Your task to perform on an android device: remove spam from my inbox in the gmail app Image 0: 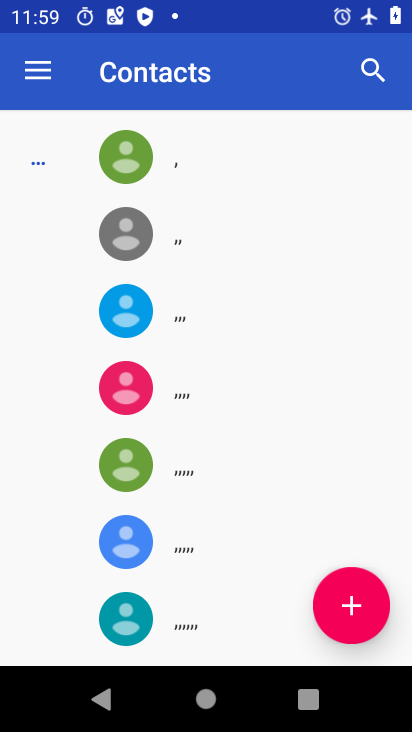
Step 0: press home button
Your task to perform on an android device: remove spam from my inbox in the gmail app Image 1: 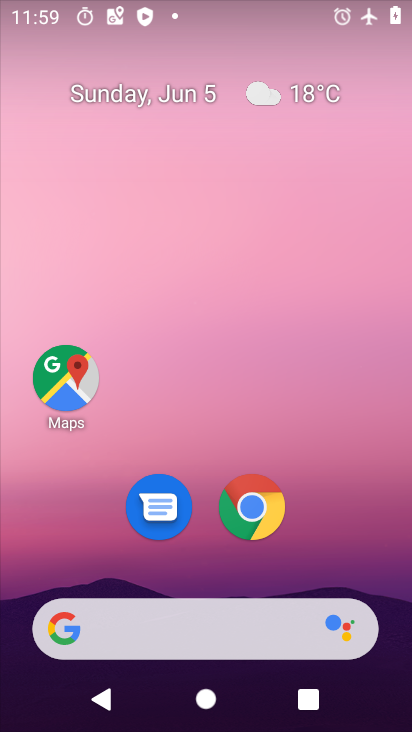
Step 1: drag from (234, 721) to (221, 81)
Your task to perform on an android device: remove spam from my inbox in the gmail app Image 2: 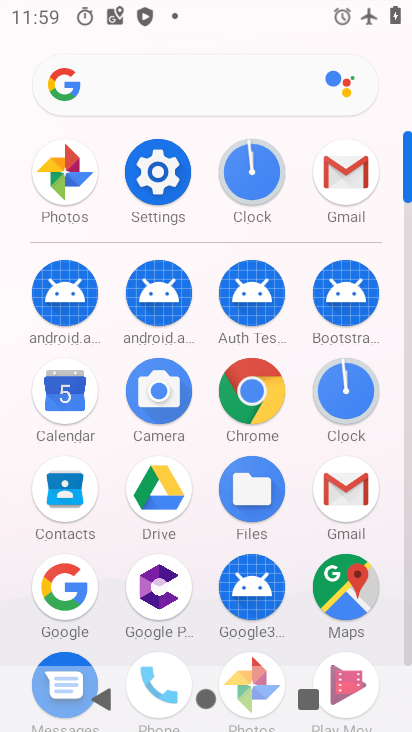
Step 2: click (348, 501)
Your task to perform on an android device: remove spam from my inbox in the gmail app Image 3: 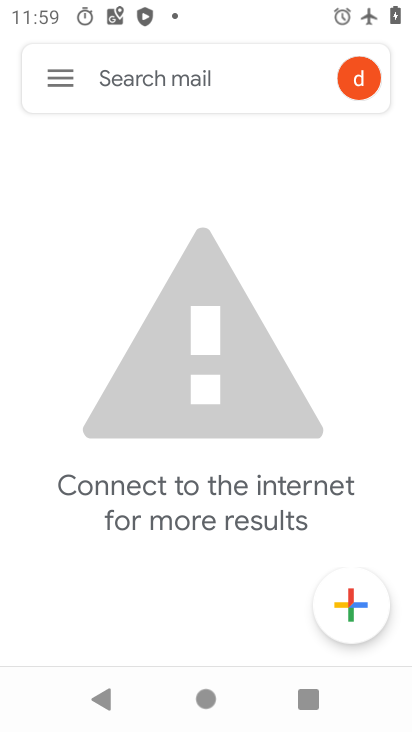
Step 3: press home button
Your task to perform on an android device: remove spam from my inbox in the gmail app Image 4: 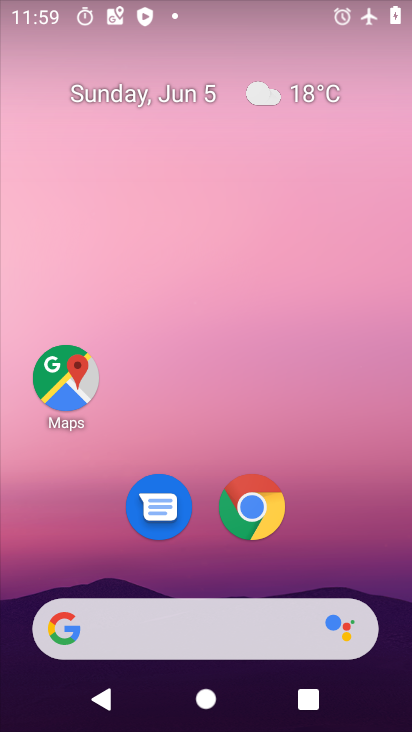
Step 4: drag from (246, 720) to (165, 35)
Your task to perform on an android device: remove spam from my inbox in the gmail app Image 5: 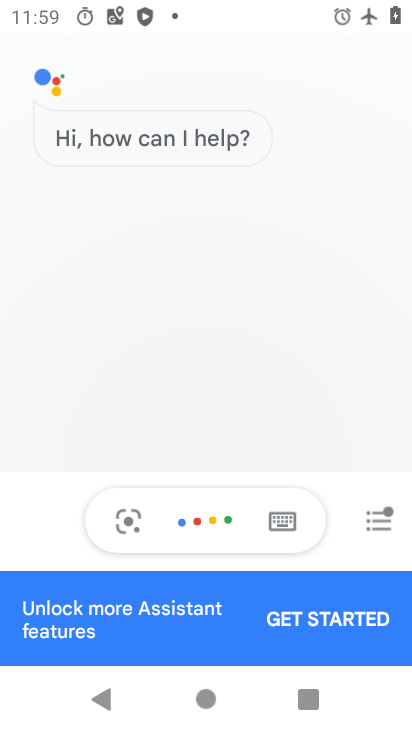
Step 5: press home button
Your task to perform on an android device: remove spam from my inbox in the gmail app Image 6: 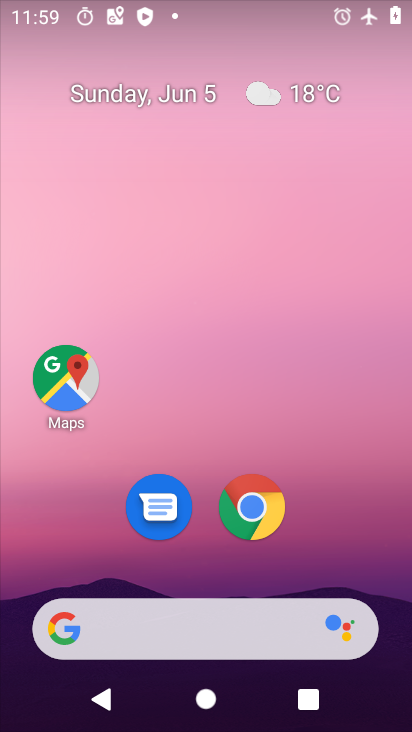
Step 6: drag from (248, 727) to (216, 98)
Your task to perform on an android device: remove spam from my inbox in the gmail app Image 7: 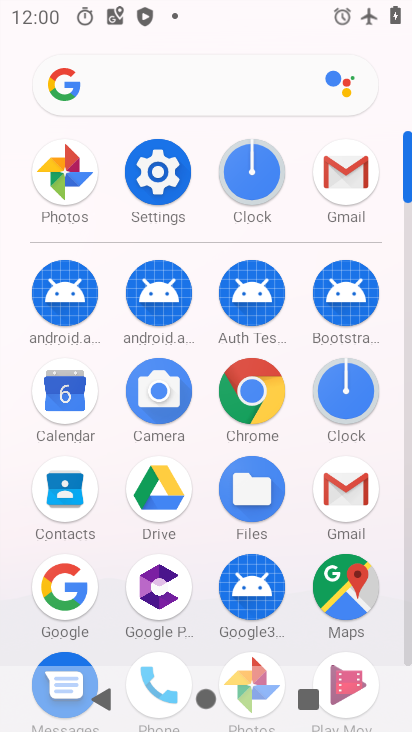
Step 7: click (344, 179)
Your task to perform on an android device: remove spam from my inbox in the gmail app Image 8: 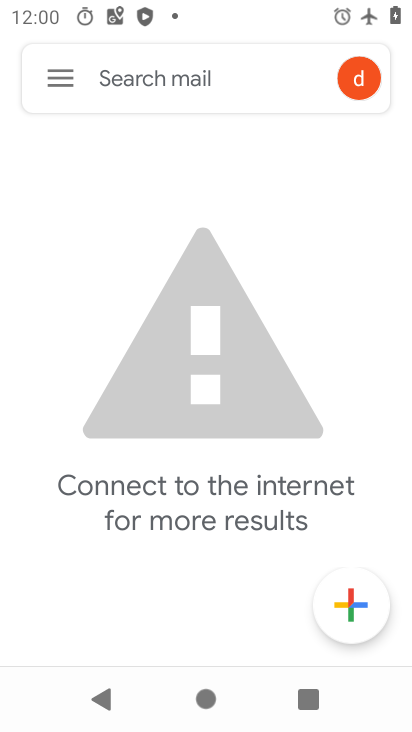
Step 8: press back button
Your task to perform on an android device: remove spam from my inbox in the gmail app Image 9: 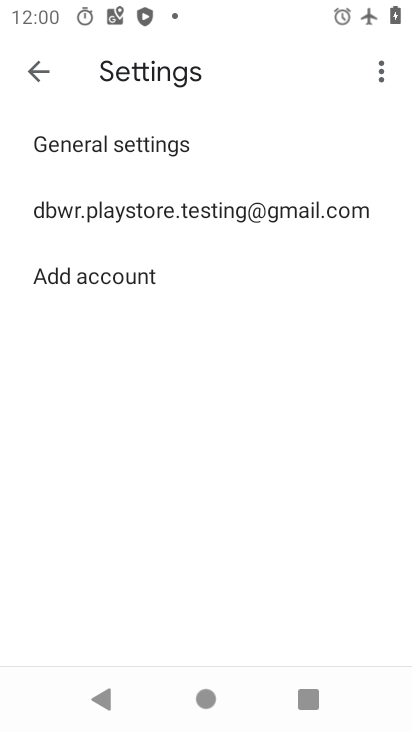
Step 9: press home button
Your task to perform on an android device: remove spam from my inbox in the gmail app Image 10: 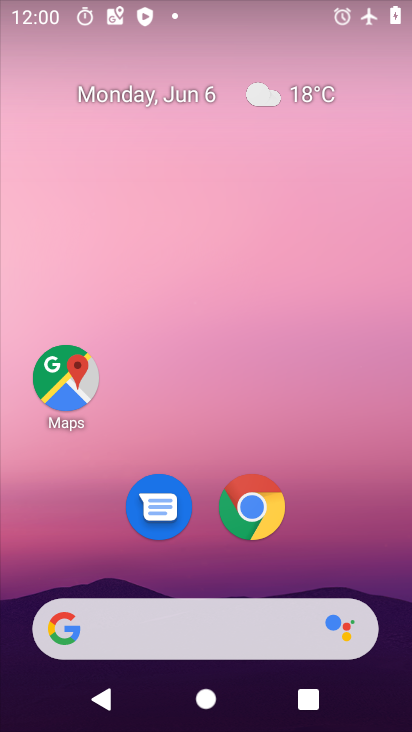
Step 10: drag from (251, 727) to (225, 215)
Your task to perform on an android device: remove spam from my inbox in the gmail app Image 11: 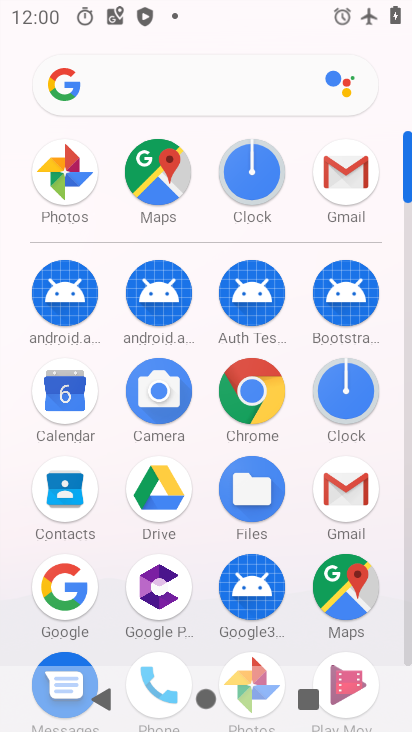
Step 11: drag from (210, 638) to (184, 239)
Your task to perform on an android device: remove spam from my inbox in the gmail app Image 12: 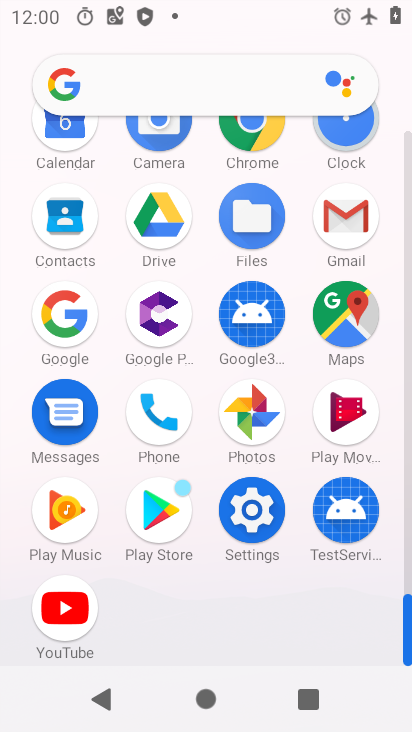
Step 12: click (251, 517)
Your task to perform on an android device: remove spam from my inbox in the gmail app Image 13: 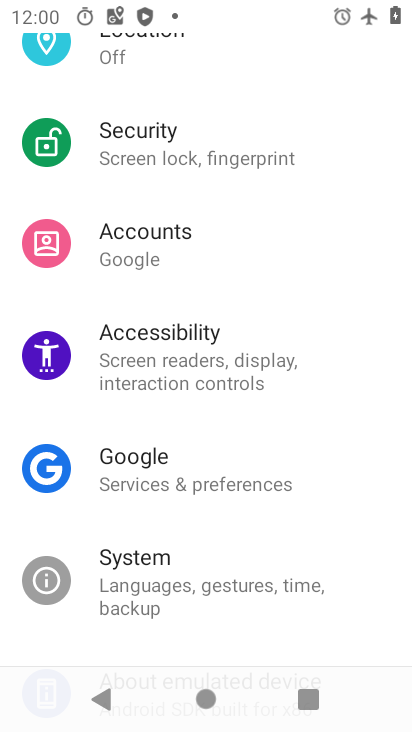
Step 13: drag from (264, 97) to (268, 522)
Your task to perform on an android device: remove spam from my inbox in the gmail app Image 14: 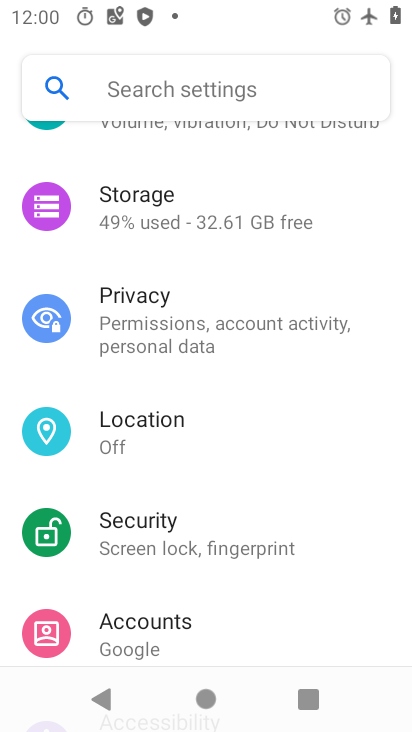
Step 14: drag from (269, 165) to (269, 583)
Your task to perform on an android device: remove spam from my inbox in the gmail app Image 15: 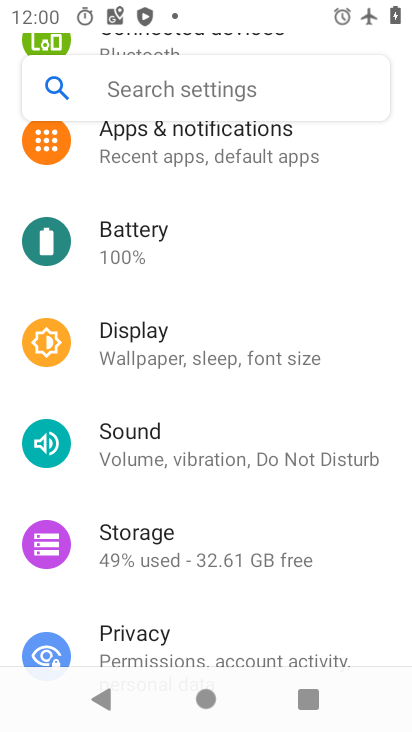
Step 15: drag from (256, 147) to (254, 593)
Your task to perform on an android device: remove spam from my inbox in the gmail app Image 16: 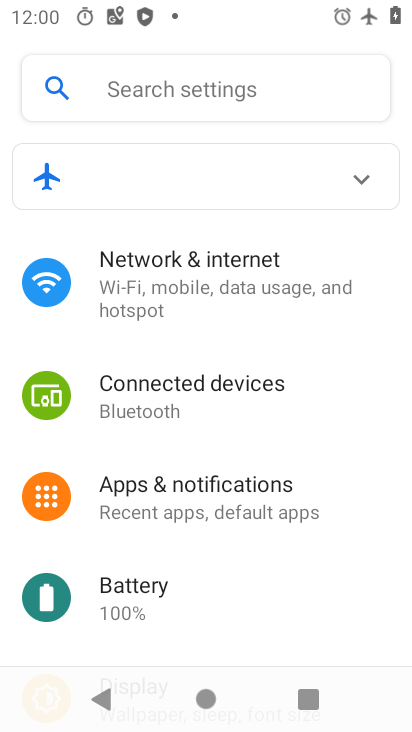
Step 16: click (216, 276)
Your task to perform on an android device: remove spam from my inbox in the gmail app Image 17: 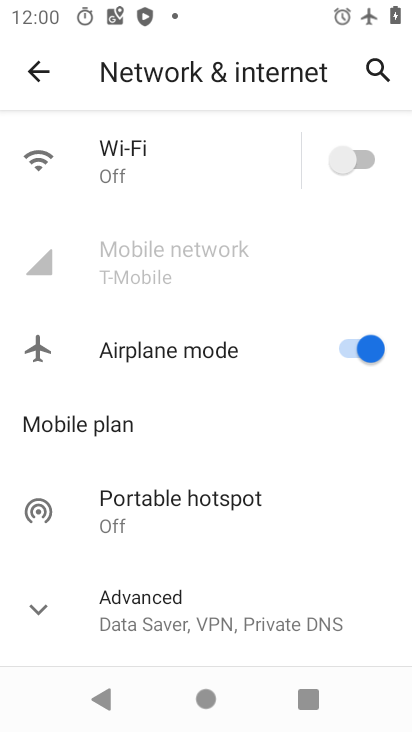
Step 17: click (353, 340)
Your task to perform on an android device: remove spam from my inbox in the gmail app Image 18: 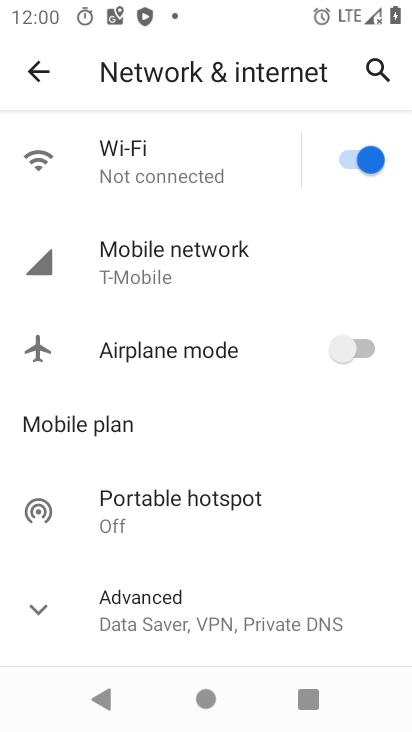
Step 18: press home button
Your task to perform on an android device: remove spam from my inbox in the gmail app Image 19: 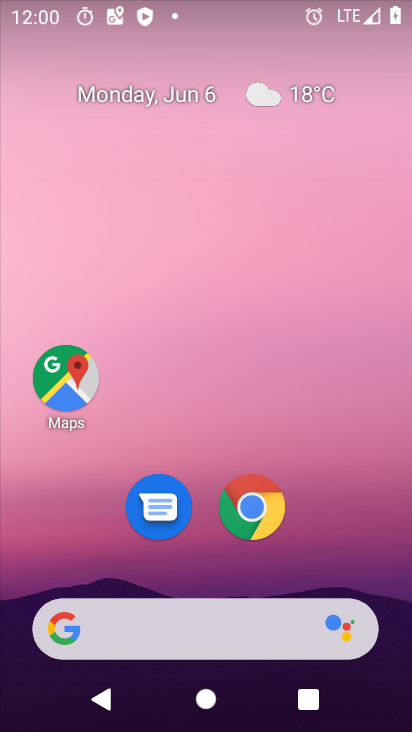
Step 19: drag from (241, 722) to (213, 107)
Your task to perform on an android device: remove spam from my inbox in the gmail app Image 20: 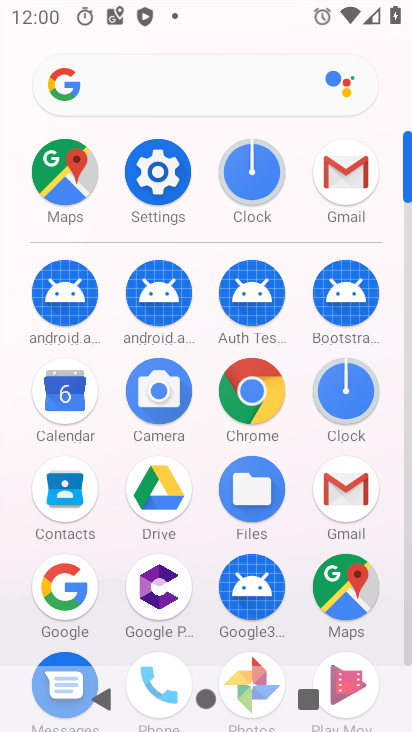
Step 20: click (339, 482)
Your task to perform on an android device: remove spam from my inbox in the gmail app Image 21: 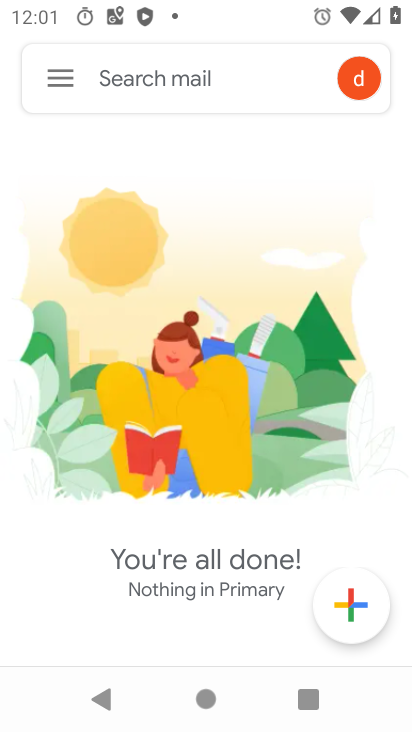
Step 21: task complete